Your task to perform on an android device: delete a single message in the gmail app Image 0: 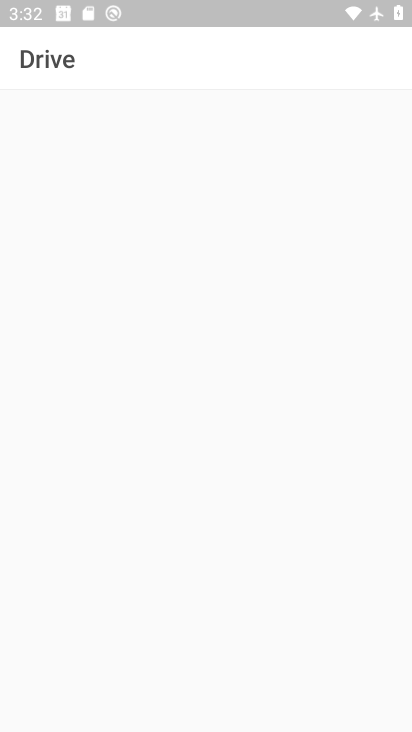
Step 0: press home button
Your task to perform on an android device: delete a single message in the gmail app Image 1: 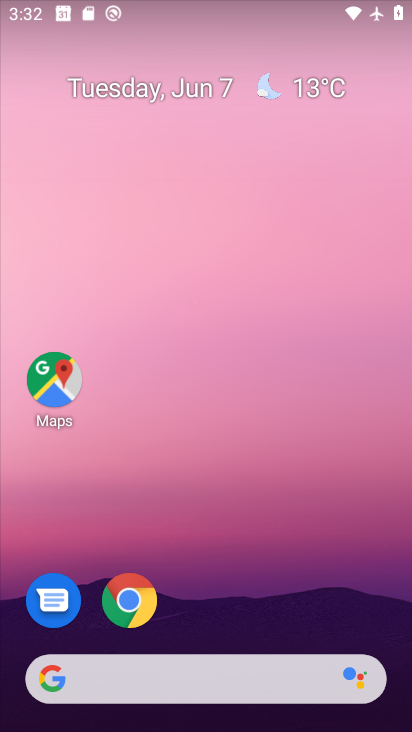
Step 1: drag from (302, 567) to (240, 237)
Your task to perform on an android device: delete a single message in the gmail app Image 2: 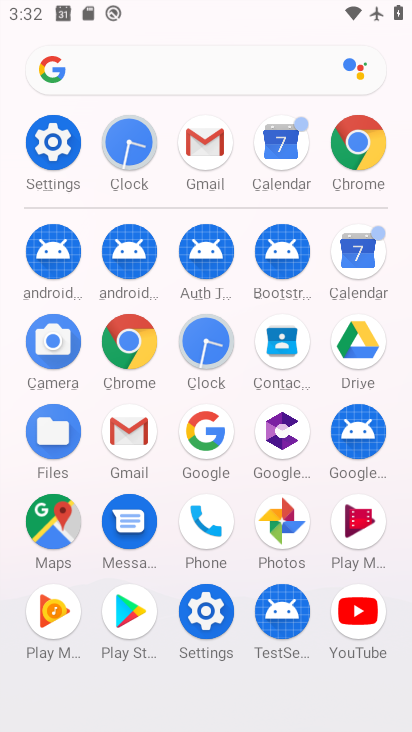
Step 2: click (138, 437)
Your task to perform on an android device: delete a single message in the gmail app Image 3: 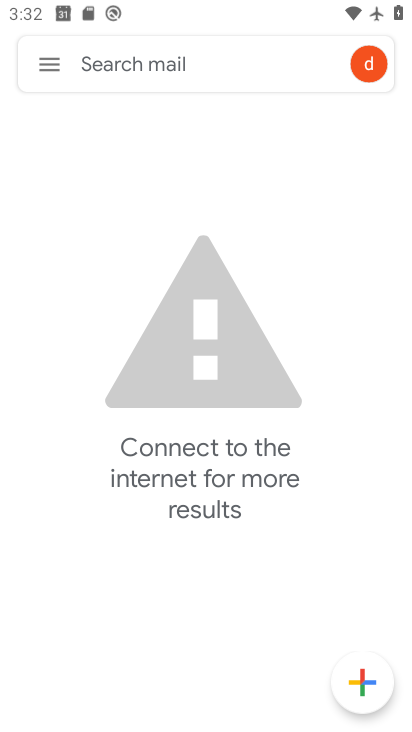
Step 3: click (56, 67)
Your task to perform on an android device: delete a single message in the gmail app Image 4: 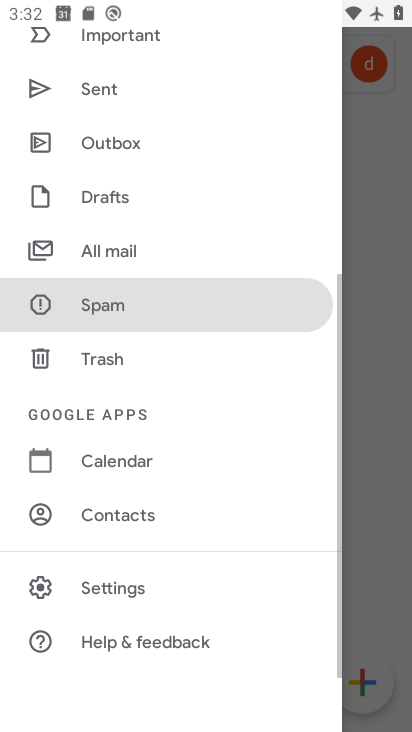
Step 4: click (161, 241)
Your task to perform on an android device: delete a single message in the gmail app Image 5: 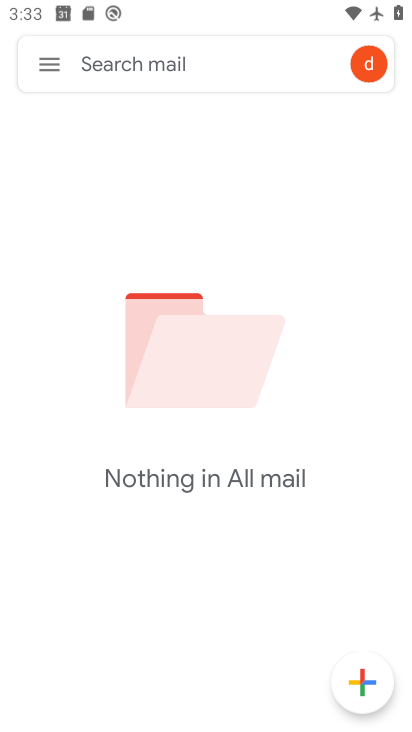
Step 5: task complete